Your task to perform on an android device: toggle wifi Image 0: 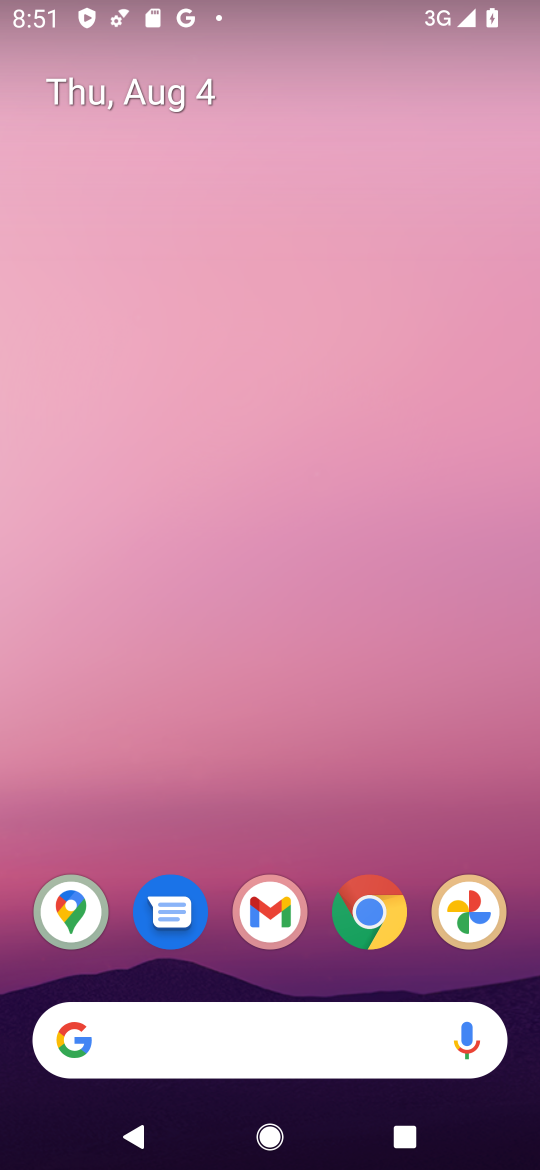
Step 0: drag from (444, 825) to (385, 91)
Your task to perform on an android device: toggle wifi Image 1: 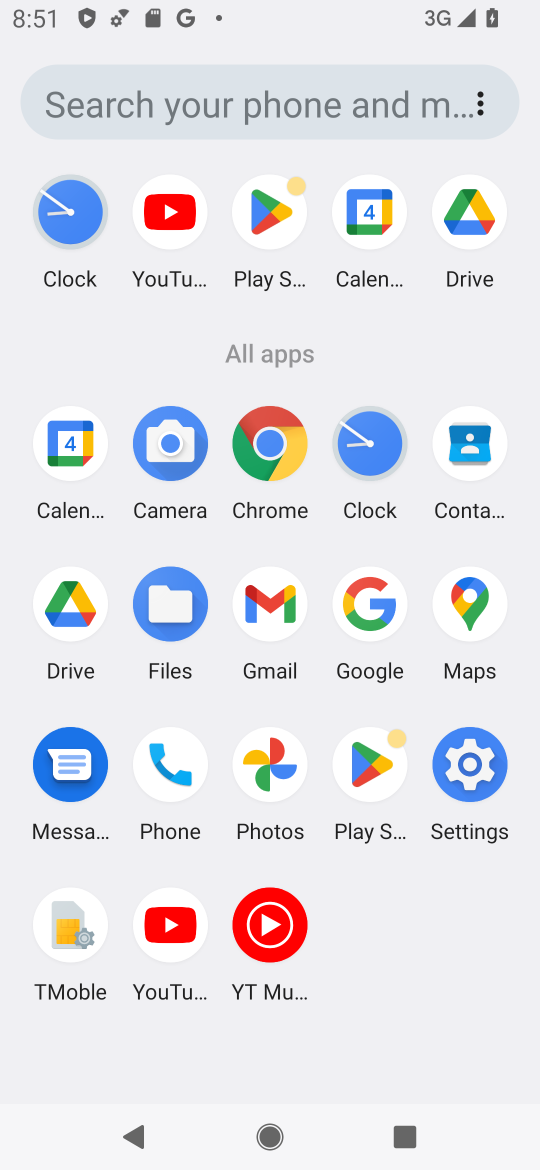
Step 1: click (480, 760)
Your task to perform on an android device: toggle wifi Image 2: 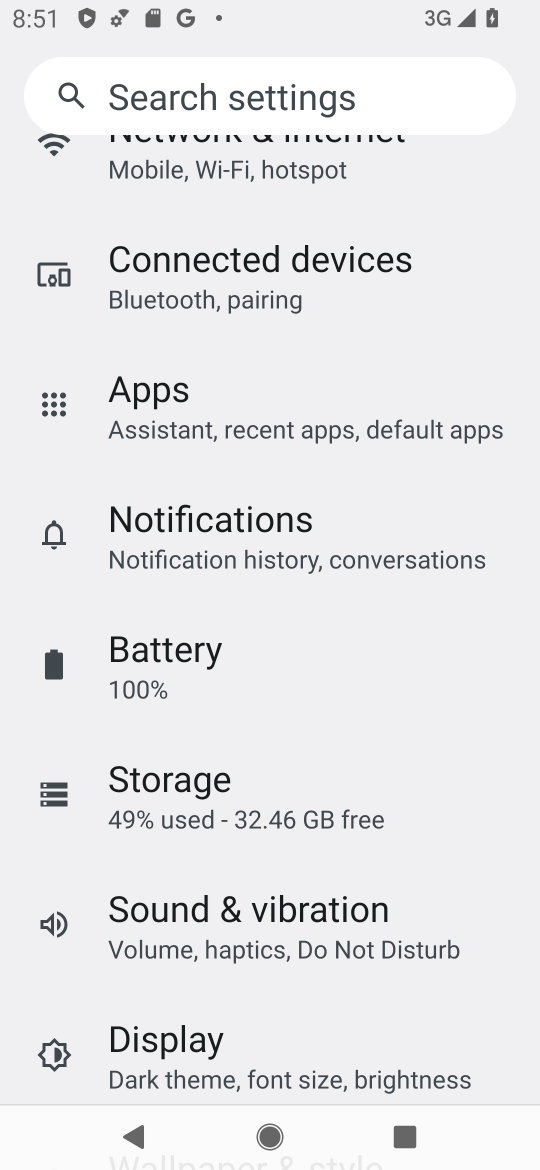
Step 2: click (346, 178)
Your task to perform on an android device: toggle wifi Image 3: 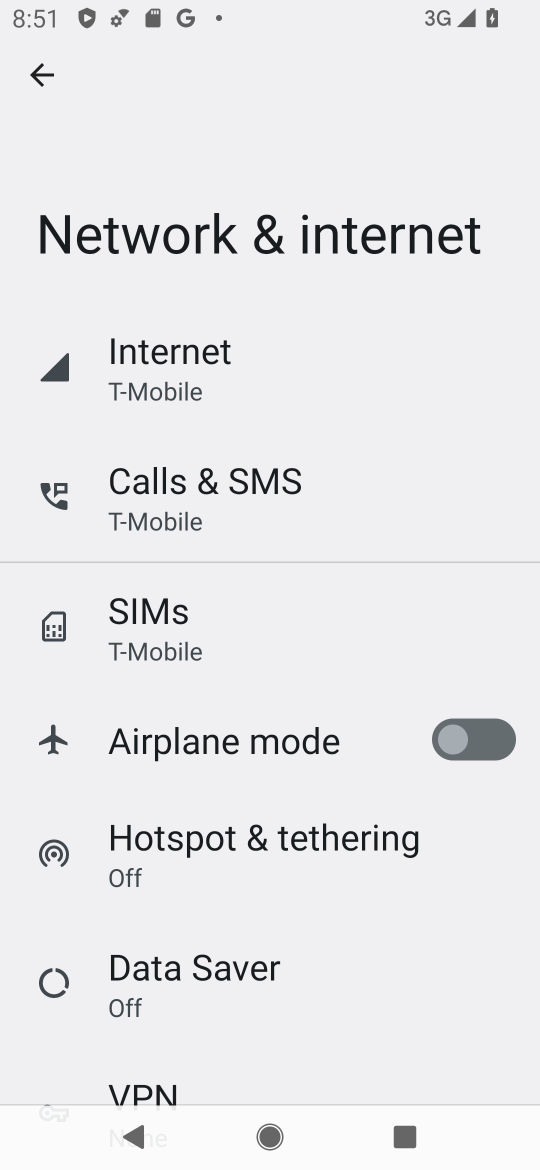
Step 3: click (394, 361)
Your task to perform on an android device: toggle wifi Image 4: 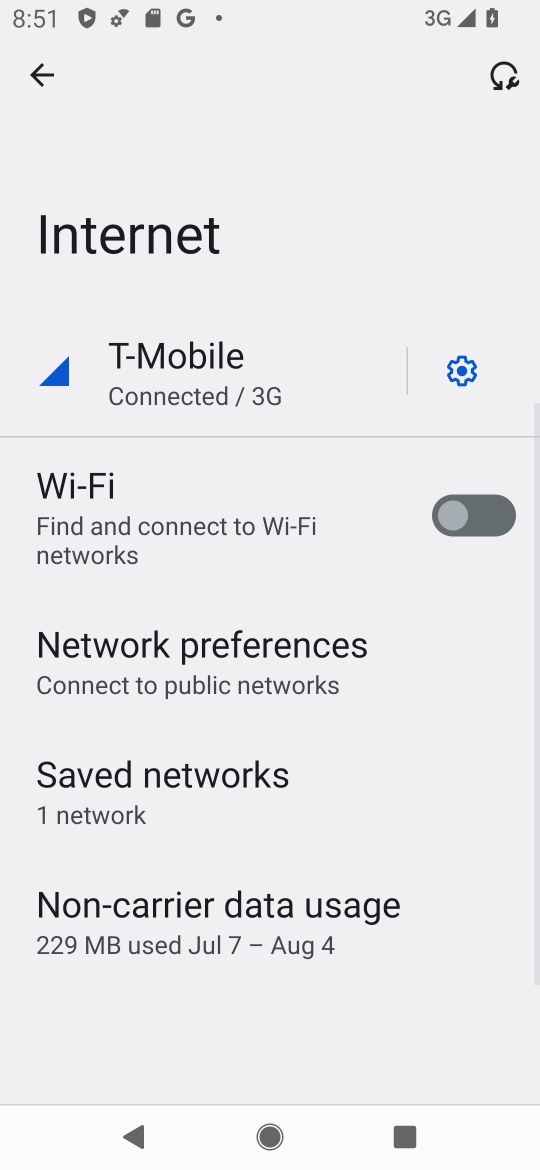
Step 4: click (478, 542)
Your task to perform on an android device: toggle wifi Image 5: 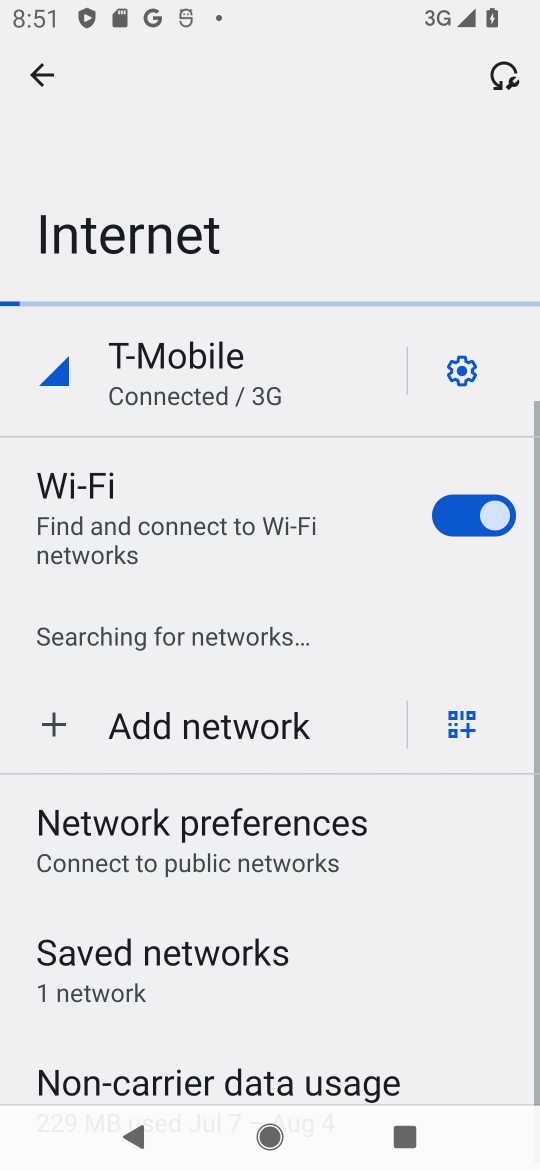
Step 5: task complete